Your task to perform on an android device: turn on the 24-hour format for clock Image 0: 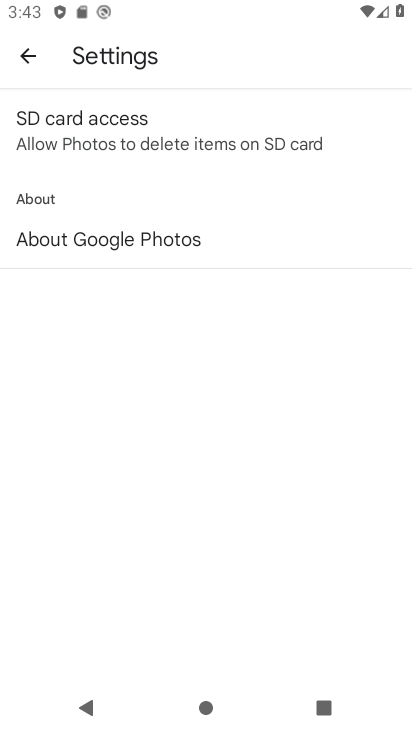
Step 0: press home button
Your task to perform on an android device: turn on the 24-hour format for clock Image 1: 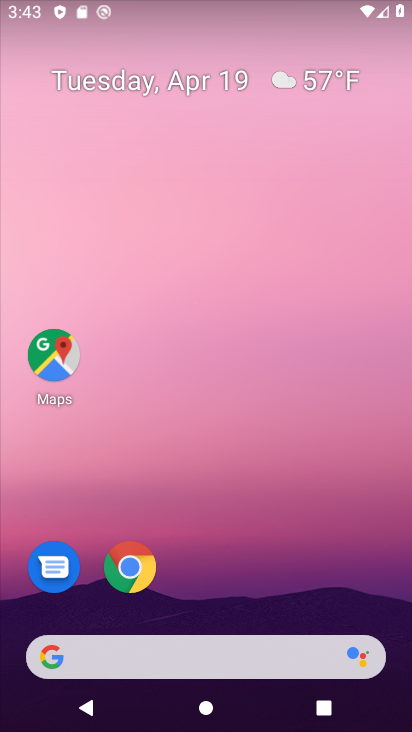
Step 1: drag from (339, 547) to (330, 173)
Your task to perform on an android device: turn on the 24-hour format for clock Image 2: 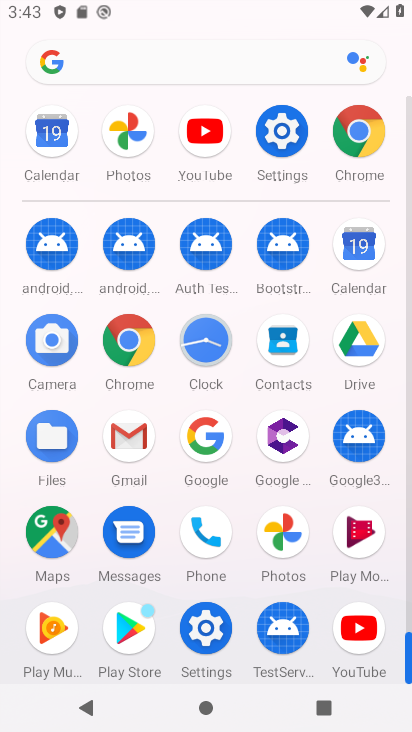
Step 2: click (207, 352)
Your task to perform on an android device: turn on the 24-hour format for clock Image 3: 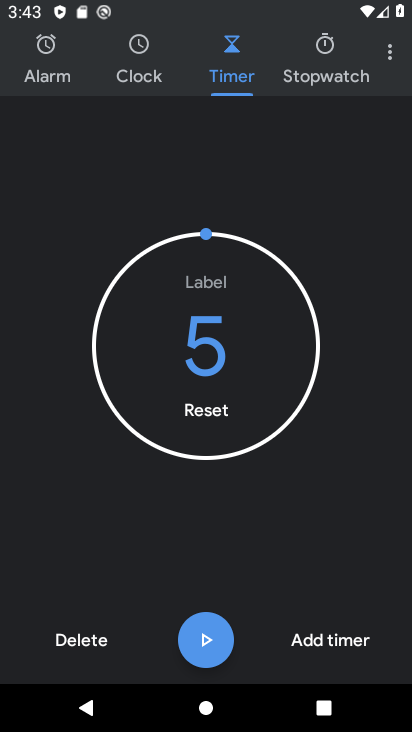
Step 3: click (389, 58)
Your task to perform on an android device: turn on the 24-hour format for clock Image 4: 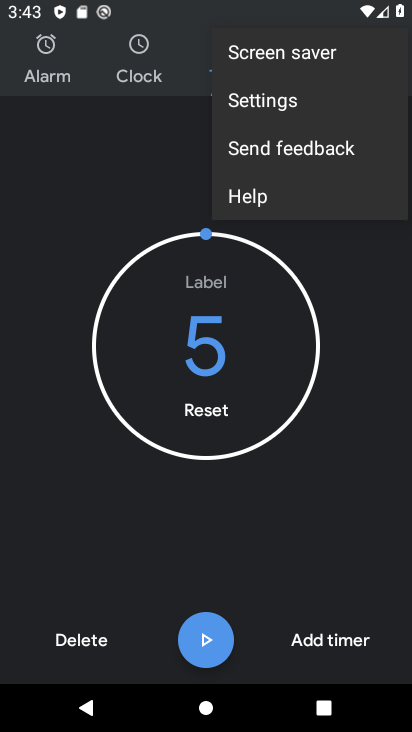
Step 4: click (283, 104)
Your task to perform on an android device: turn on the 24-hour format for clock Image 5: 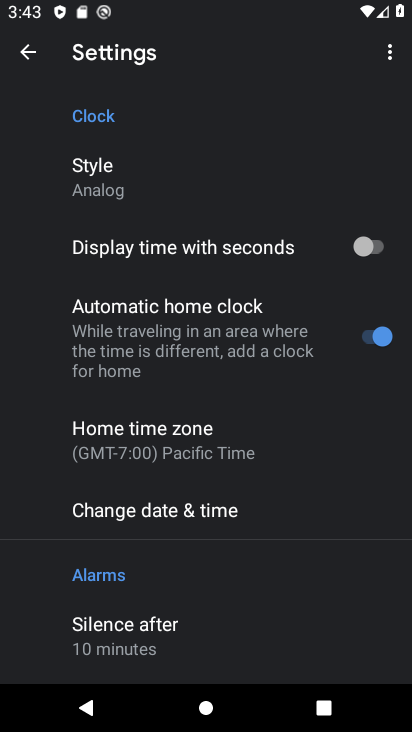
Step 5: drag from (305, 545) to (307, 291)
Your task to perform on an android device: turn on the 24-hour format for clock Image 6: 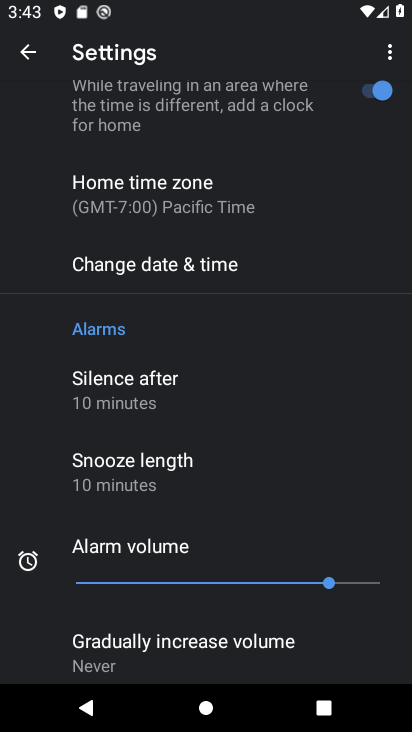
Step 6: click (197, 263)
Your task to perform on an android device: turn on the 24-hour format for clock Image 7: 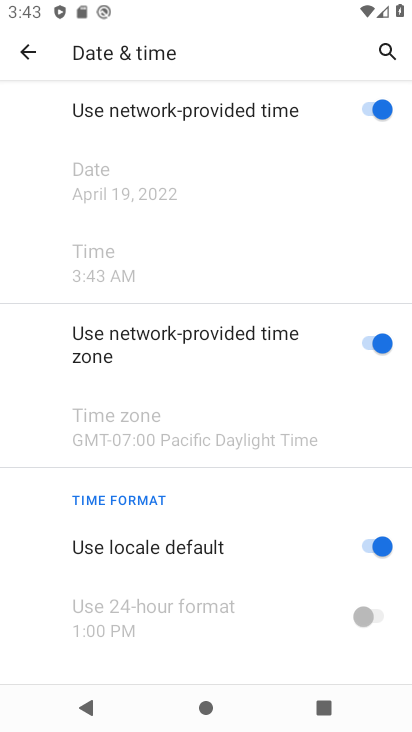
Step 7: drag from (286, 545) to (252, 351)
Your task to perform on an android device: turn on the 24-hour format for clock Image 8: 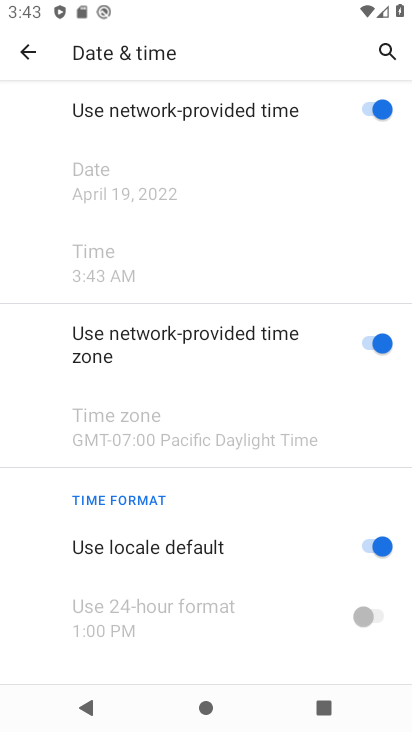
Step 8: click (376, 535)
Your task to perform on an android device: turn on the 24-hour format for clock Image 9: 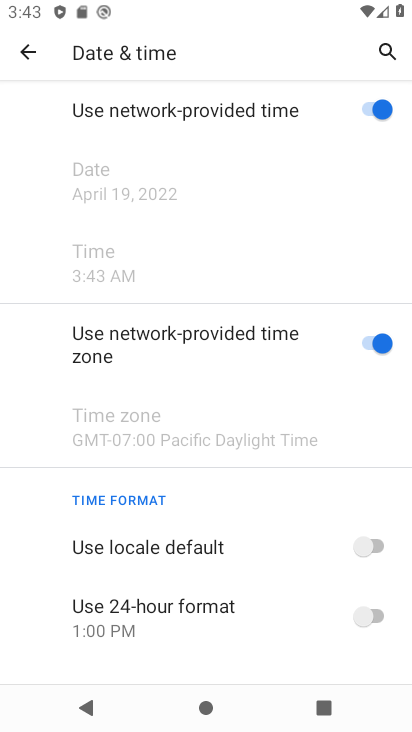
Step 9: click (358, 613)
Your task to perform on an android device: turn on the 24-hour format for clock Image 10: 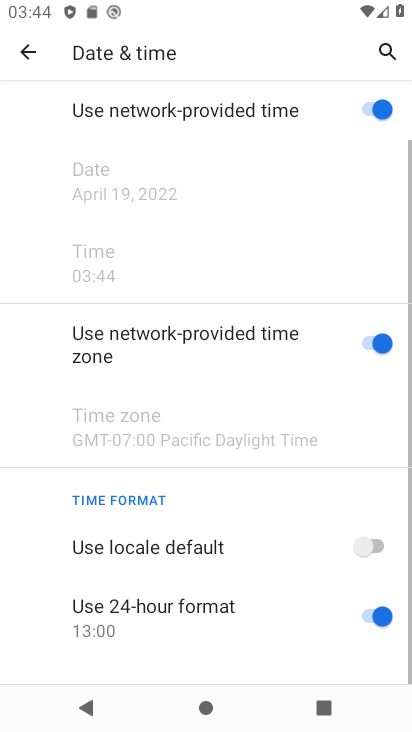
Step 10: task complete